Your task to perform on an android device: Open the Play Movies app and select the watchlist tab. Image 0: 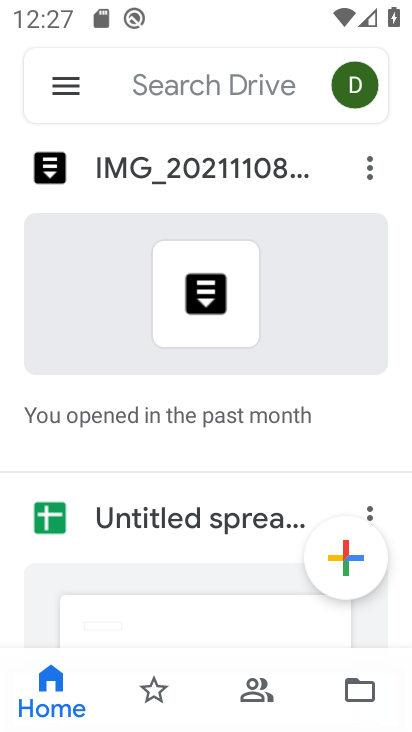
Step 0: press home button
Your task to perform on an android device: Open the Play Movies app and select the watchlist tab. Image 1: 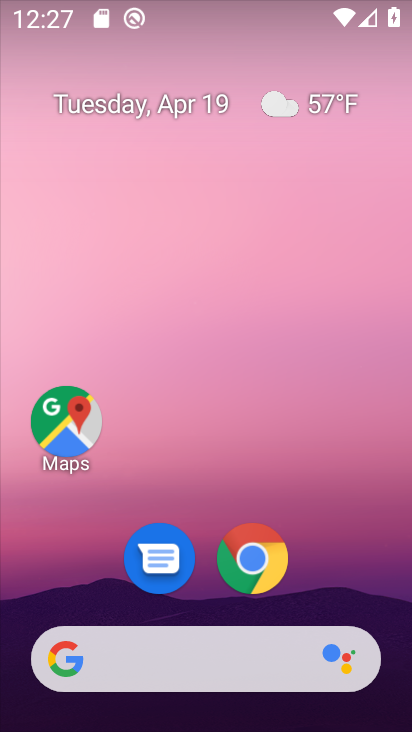
Step 1: drag from (314, 588) to (280, 141)
Your task to perform on an android device: Open the Play Movies app and select the watchlist tab. Image 2: 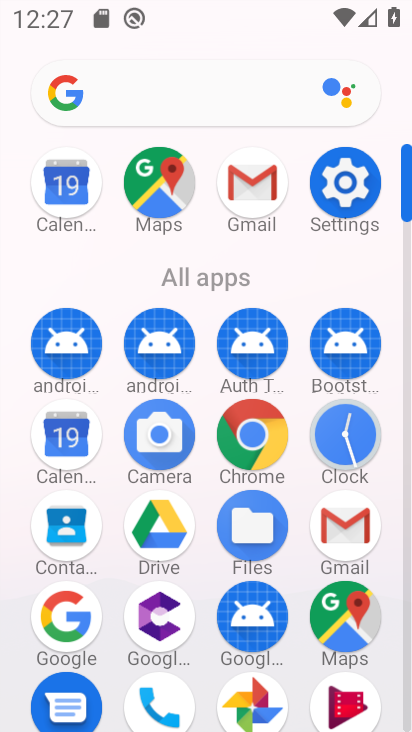
Step 2: click (337, 704)
Your task to perform on an android device: Open the Play Movies app and select the watchlist tab. Image 3: 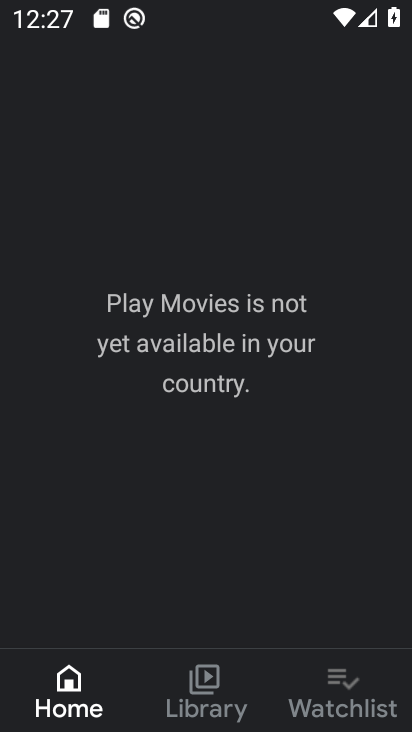
Step 3: click (339, 700)
Your task to perform on an android device: Open the Play Movies app and select the watchlist tab. Image 4: 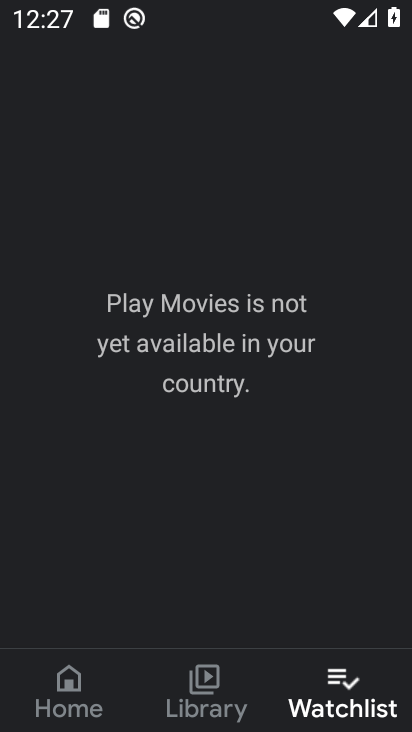
Step 4: task complete